Your task to perform on an android device: allow cookies in the chrome app Image 0: 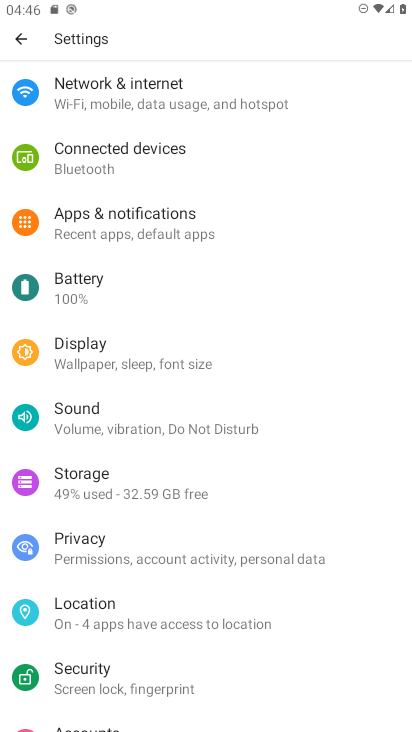
Step 0: press home button
Your task to perform on an android device: allow cookies in the chrome app Image 1: 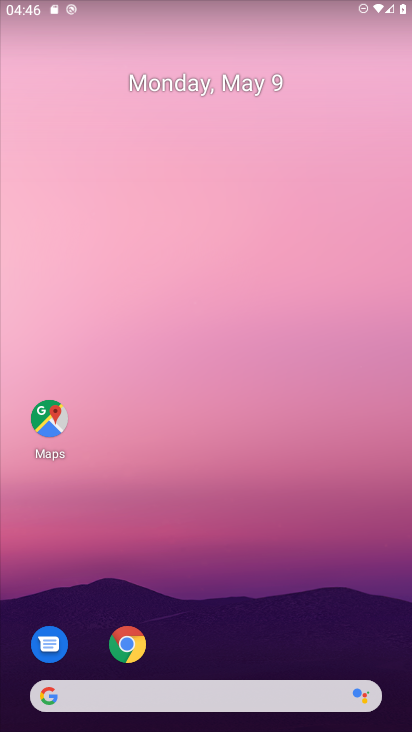
Step 1: click (131, 636)
Your task to perform on an android device: allow cookies in the chrome app Image 2: 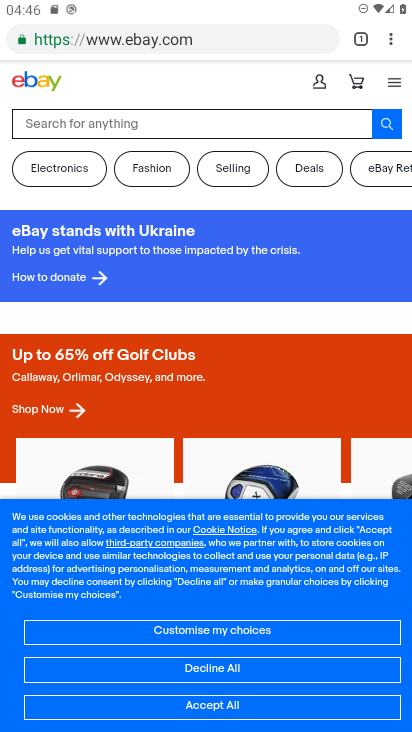
Step 2: click (386, 37)
Your task to perform on an android device: allow cookies in the chrome app Image 3: 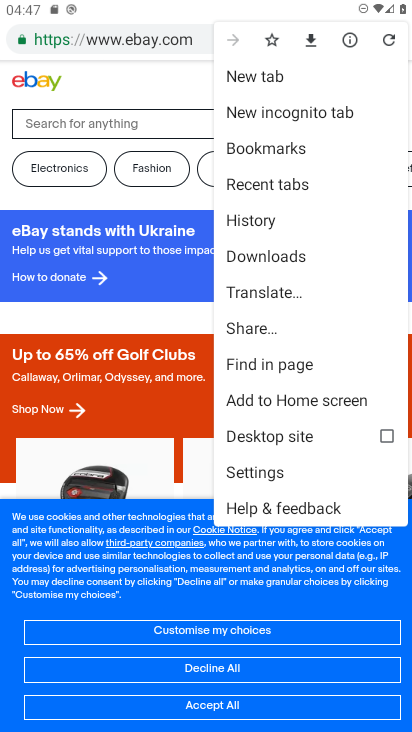
Step 3: click (261, 471)
Your task to perform on an android device: allow cookies in the chrome app Image 4: 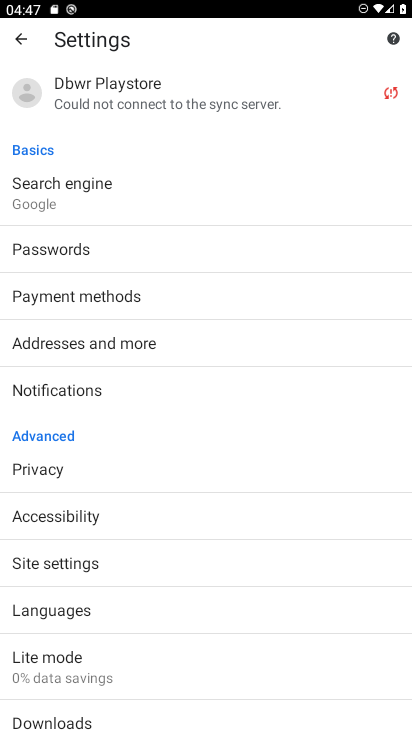
Step 4: click (44, 563)
Your task to perform on an android device: allow cookies in the chrome app Image 5: 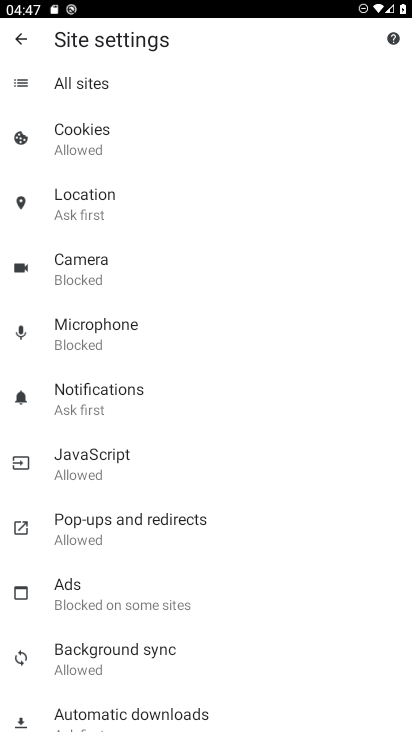
Step 5: click (111, 141)
Your task to perform on an android device: allow cookies in the chrome app Image 6: 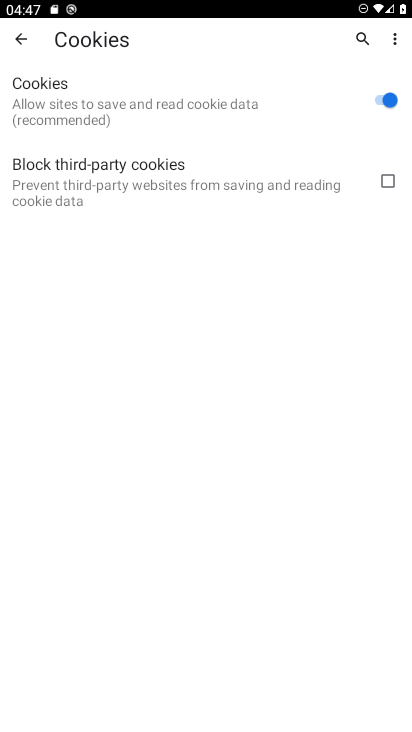
Step 6: task complete